Your task to perform on an android device: change alarm snooze length Image 0: 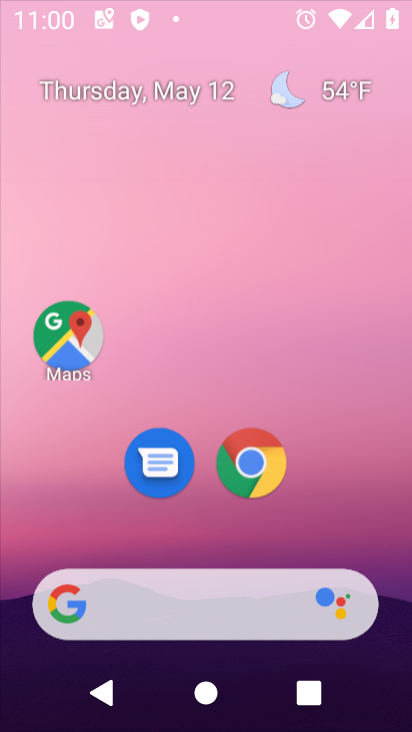
Step 0: drag from (355, 507) to (377, 102)
Your task to perform on an android device: change alarm snooze length Image 1: 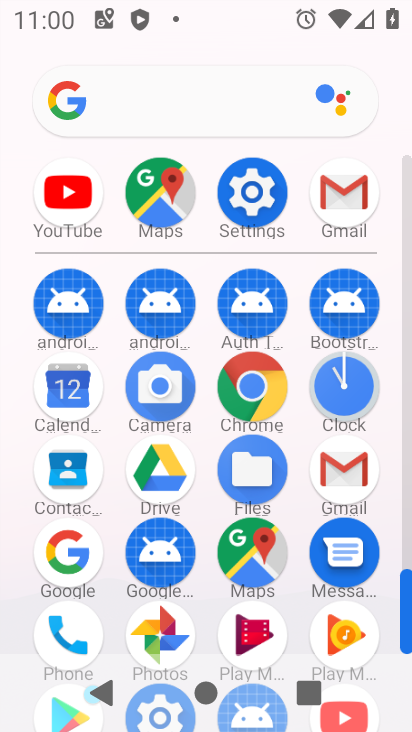
Step 1: click (332, 401)
Your task to perform on an android device: change alarm snooze length Image 2: 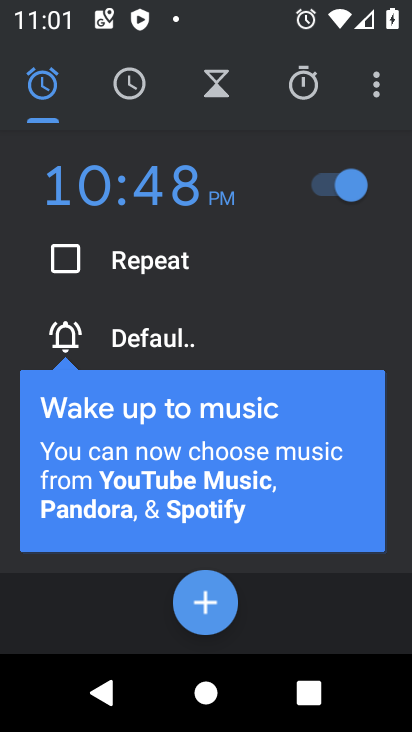
Step 2: click (387, 93)
Your task to perform on an android device: change alarm snooze length Image 3: 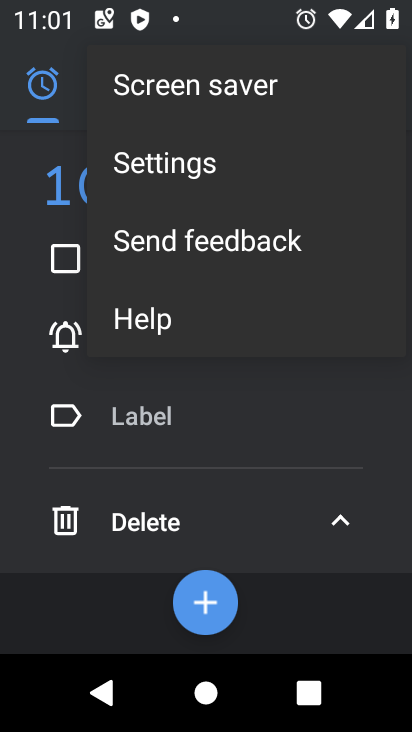
Step 3: click (195, 171)
Your task to perform on an android device: change alarm snooze length Image 4: 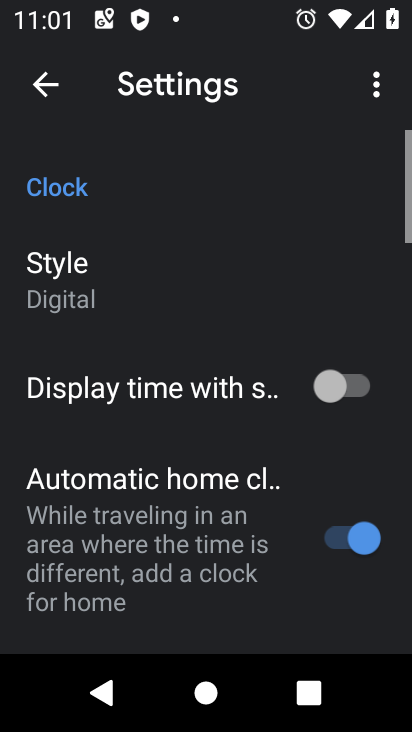
Step 4: drag from (170, 533) to (192, 285)
Your task to perform on an android device: change alarm snooze length Image 5: 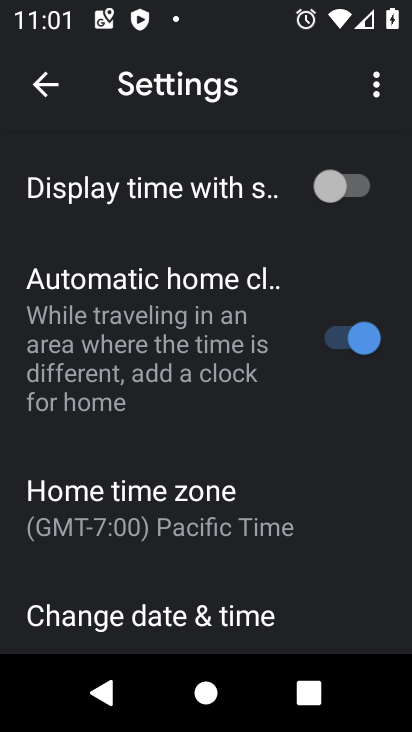
Step 5: drag from (187, 541) to (218, 232)
Your task to perform on an android device: change alarm snooze length Image 6: 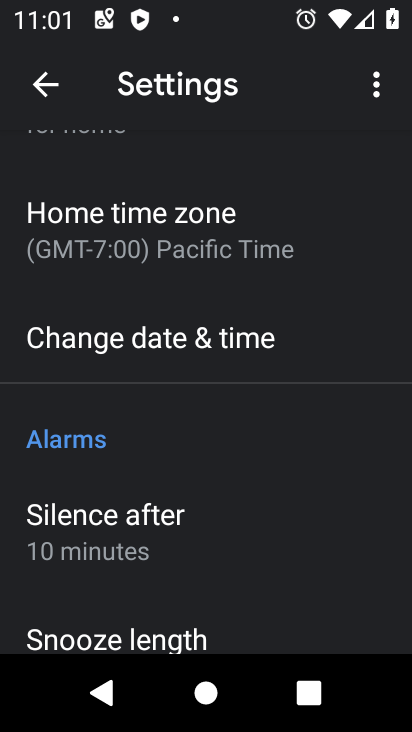
Step 6: drag from (211, 577) to (227, 260)
Your task to perform on an android device: change alarm snooze length Image 7: 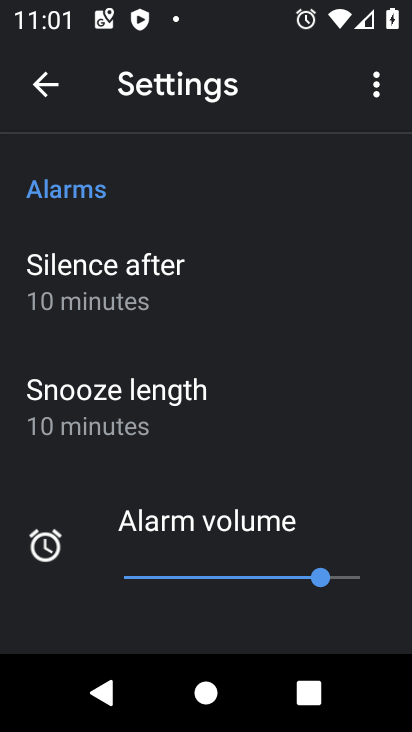
Step 7: click (218, 402)
Your task to perform on an android device: change alarm snooze length Image 8: 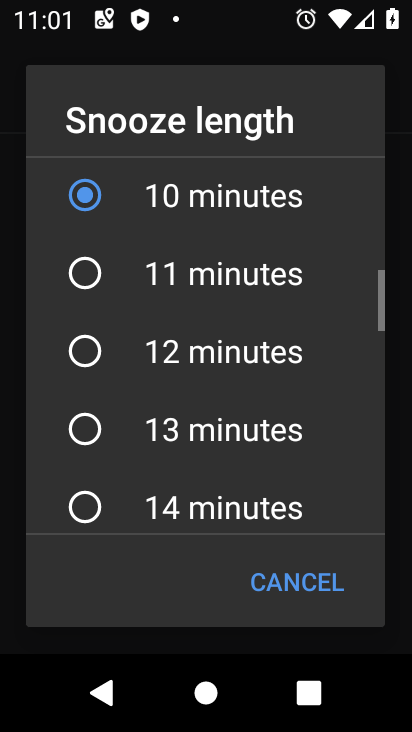
Step 8: click (77, 359)
Your task to perform on an android device: change alarm snooze length Image 9: 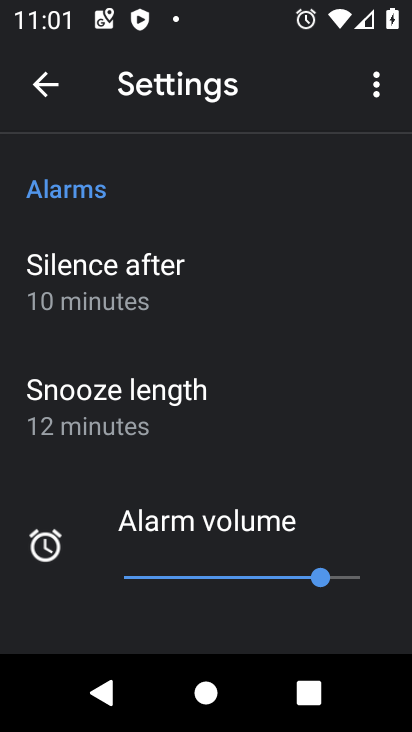
Step 9: task complete